Your task to perform on an android device: uninstall "Google Play services" Image 0: 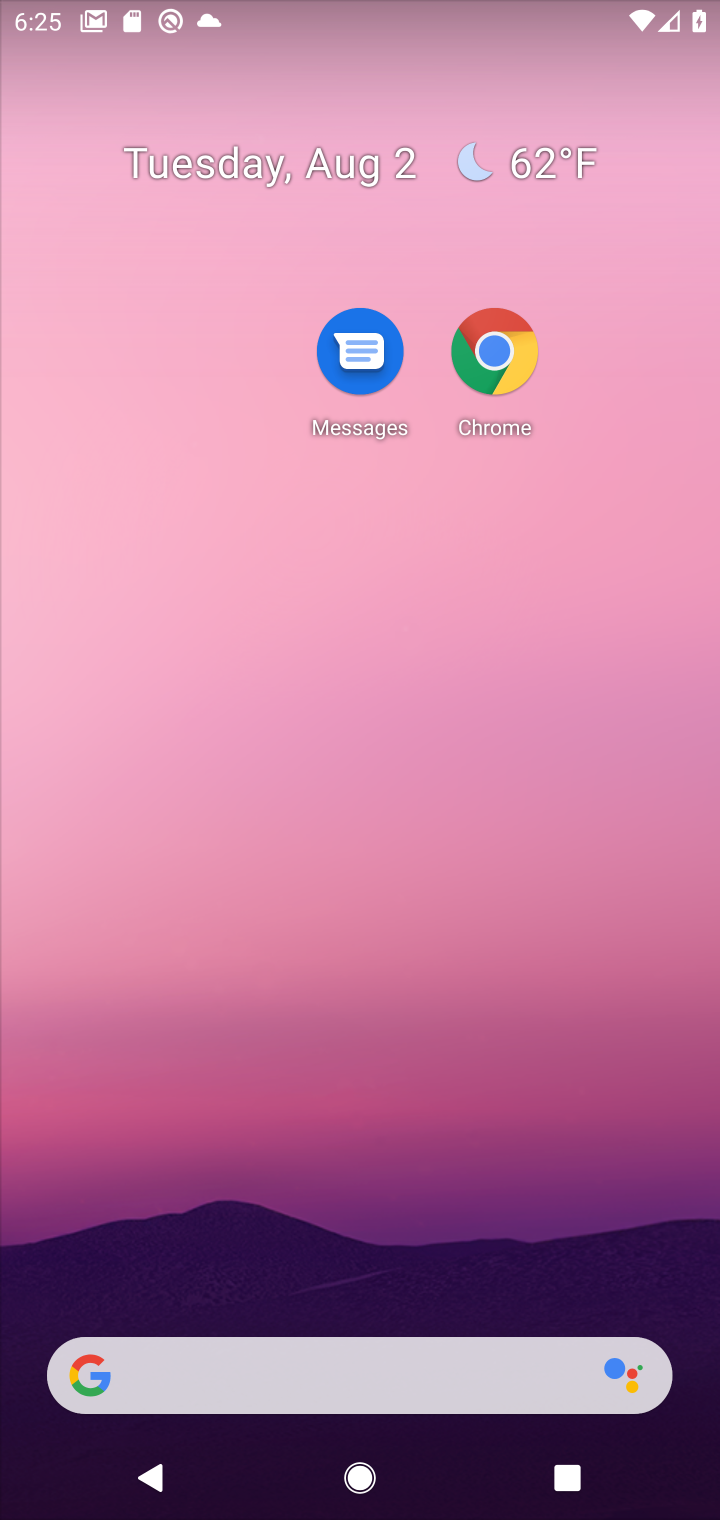
Step 0: drag from (293, 639) to (373, 84)
Your task to perform on an android device: uninstall "Google Play services" Image 1: 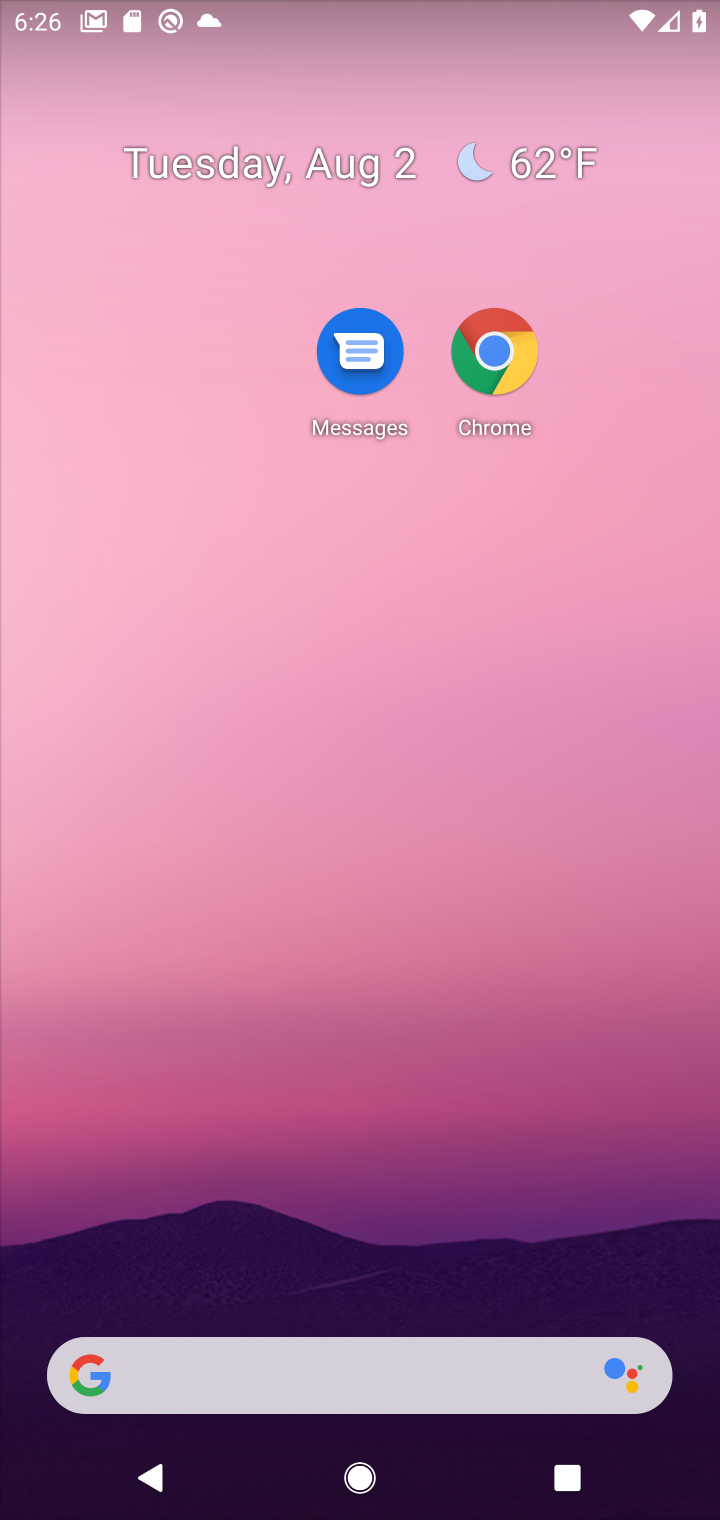
Step 1: drag from (324, 1265) to (455, 153)
Your task to perform on an android device: uninstall "Google Play services" Image 2: 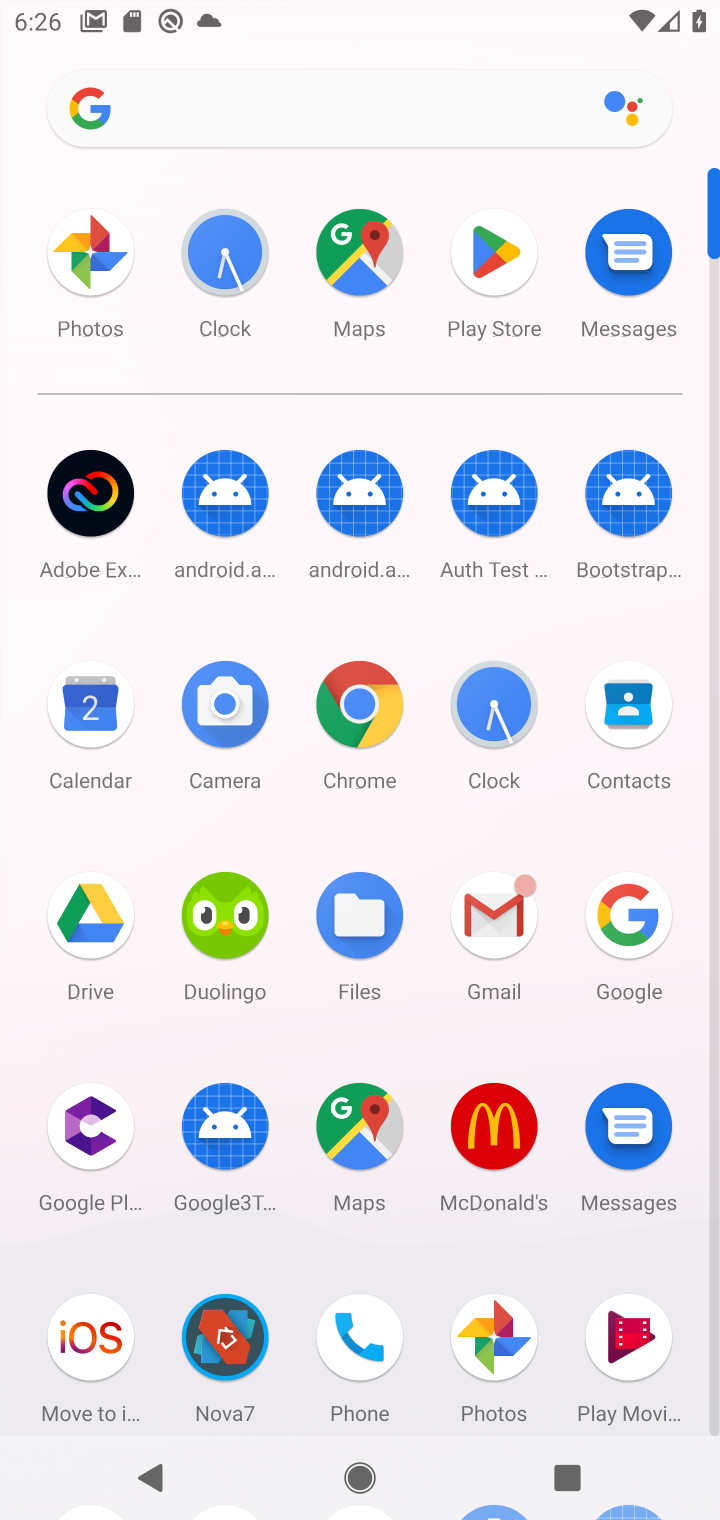
Step 2: click (480, 246)
Your task to perform on an android device: uninstall "Google Play services" Image 3: 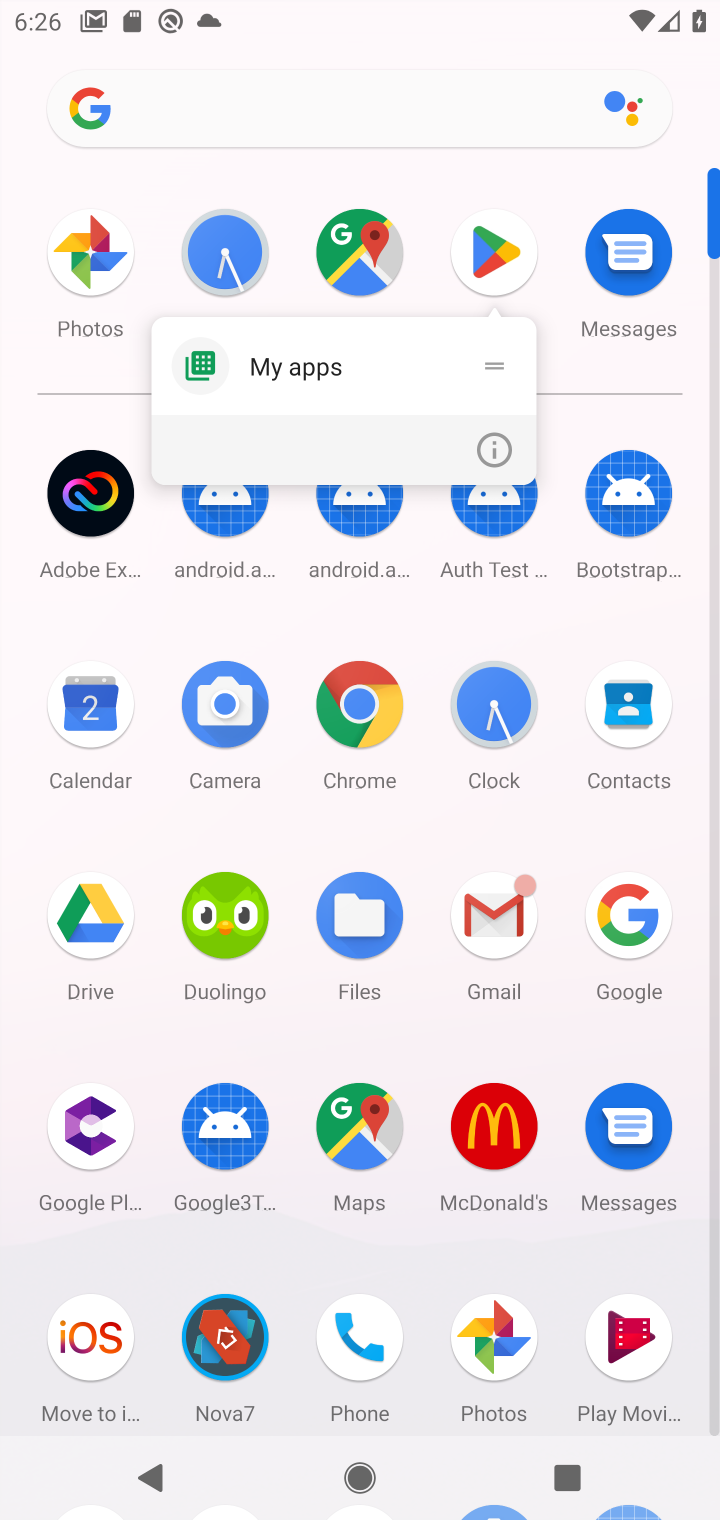
Step 3: click (478, 432)
Your task to perform on an android device: uninstall "Google Play services" Image 4: 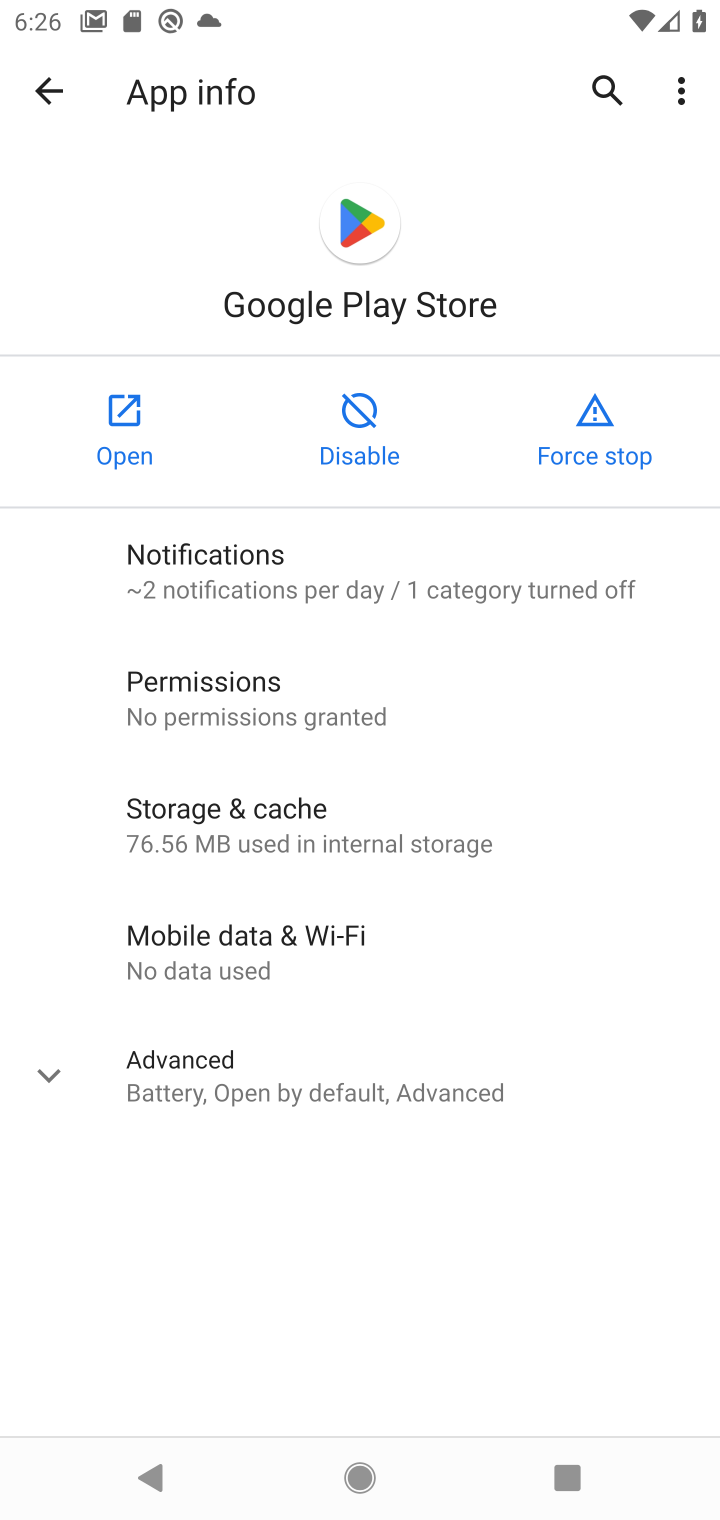
Step 4: click (126, 437)
Your task to perform on an android device: uninstall "Google Play services" Image 5: 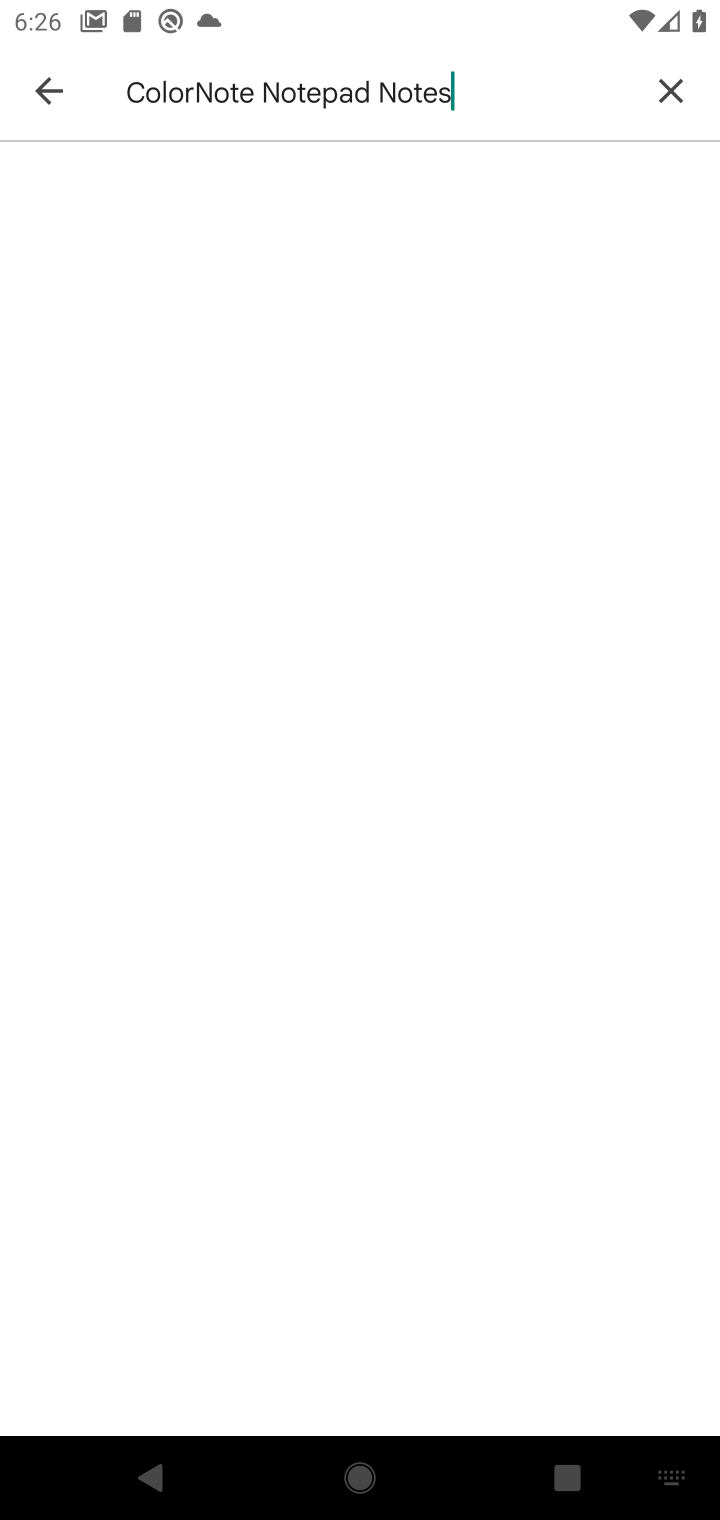
Step 5: drag from (270, 832) to (286, 491)
Your task to perform on an android device: uninstall "Google Play services" Image 6: 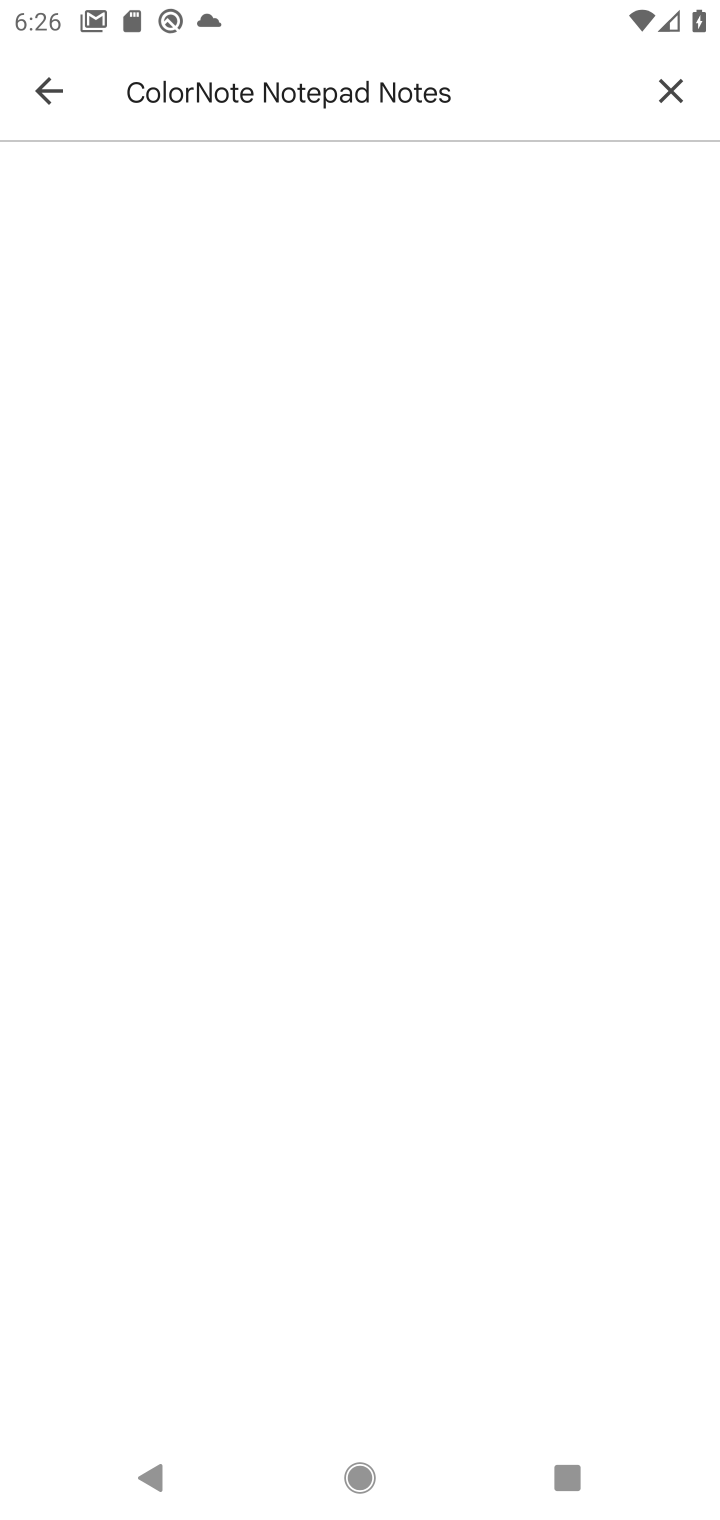
Step 6: drag from (428, 828) to (439, 350)
Your task to perform on an android device: uninstall "Google Play services" Image 7: 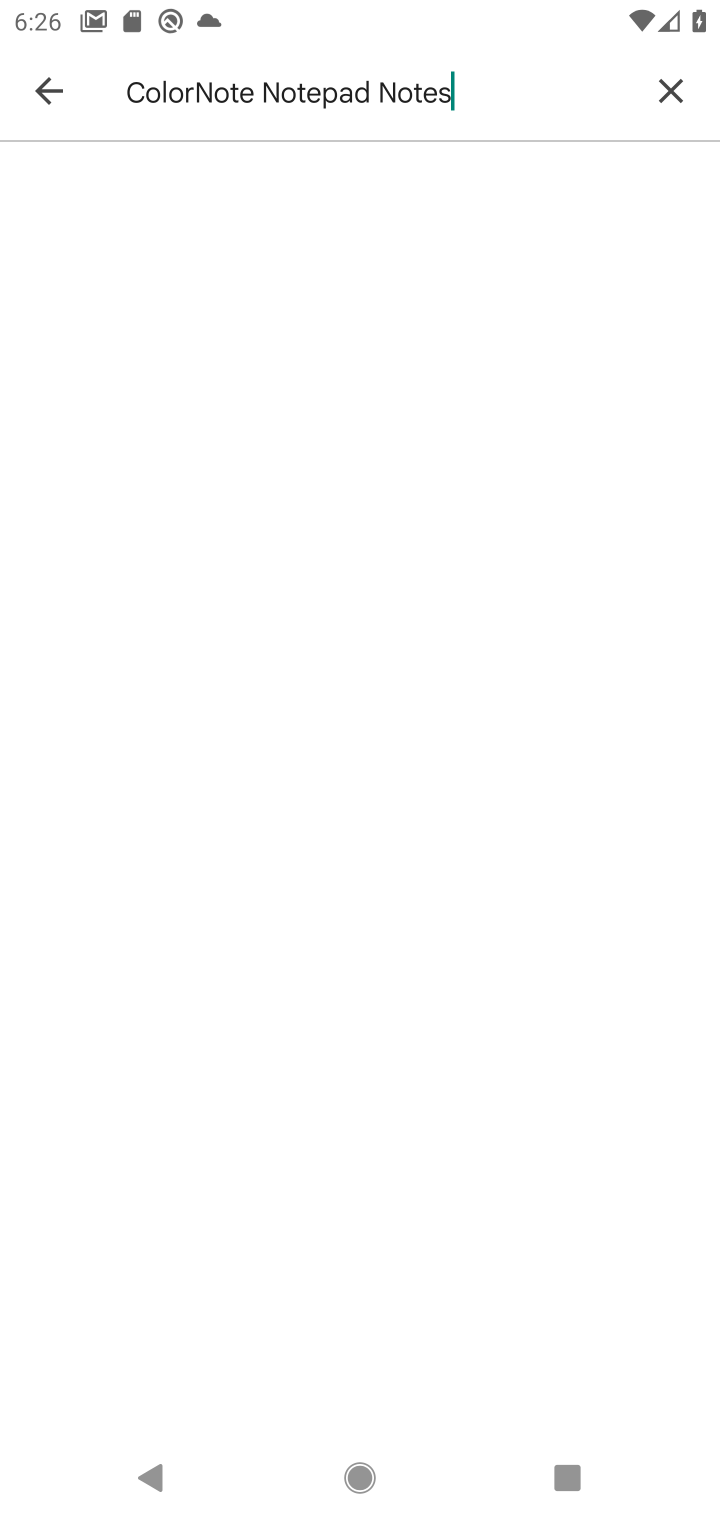
Step 7: drag from (367, 314) to (364, 1213)
Your task to perform on an android device: uninstall "Google Play services" Image 8: 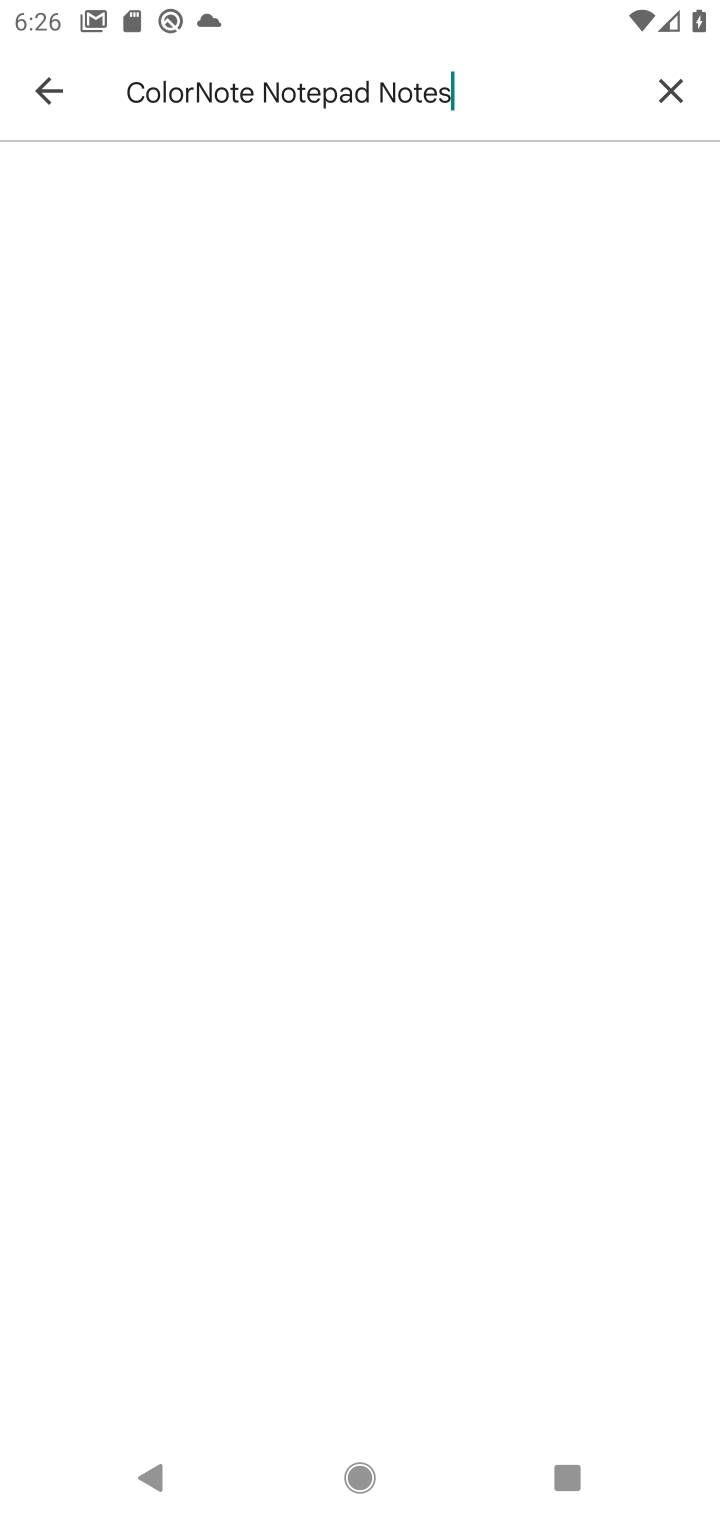
Step 8: drag from (286, 481) to (435, 636)
Your task to perform on an android device: uninstall "Google Play services" Image 9: 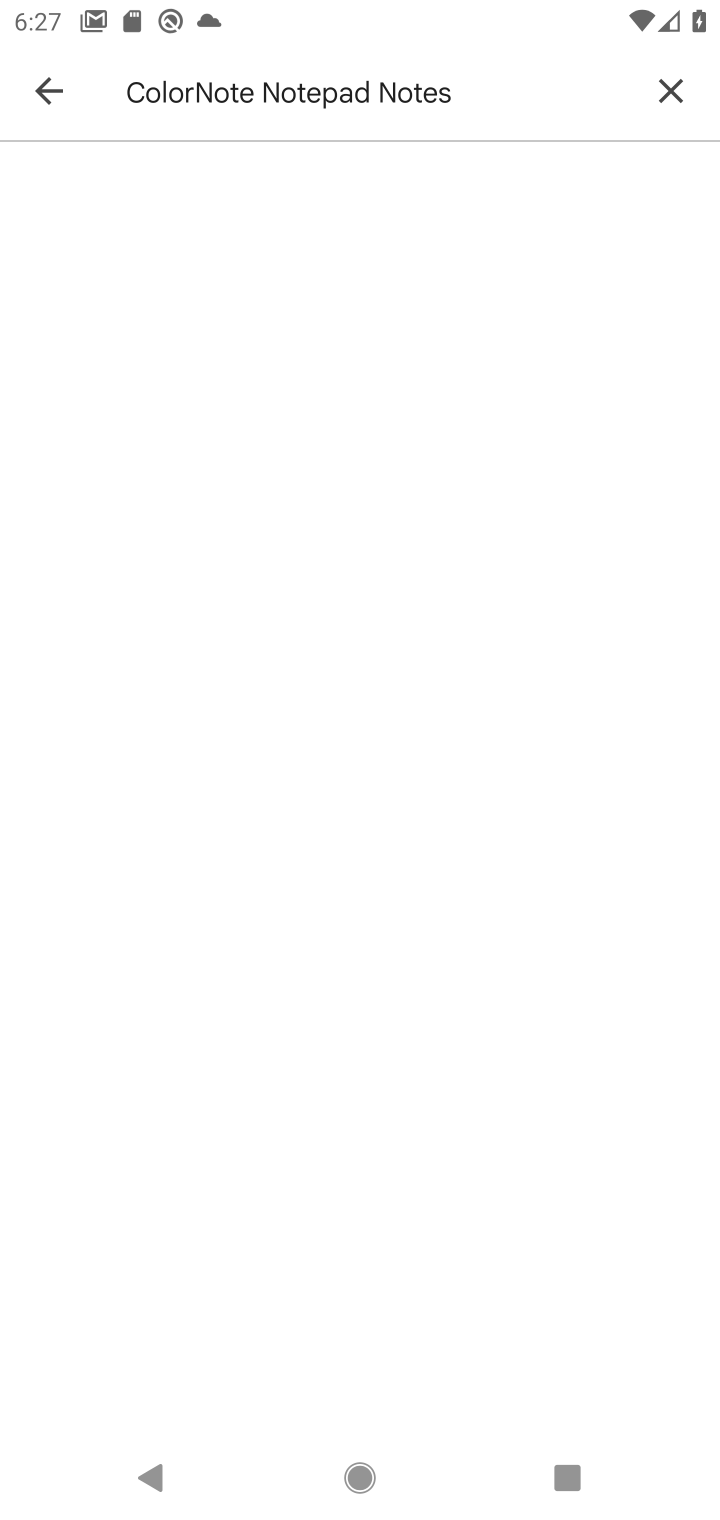
Step 9: drag from (249, 364) to (608, 1405)
Your task to perform on an android device: uninstall "Google Play services" Image 10: 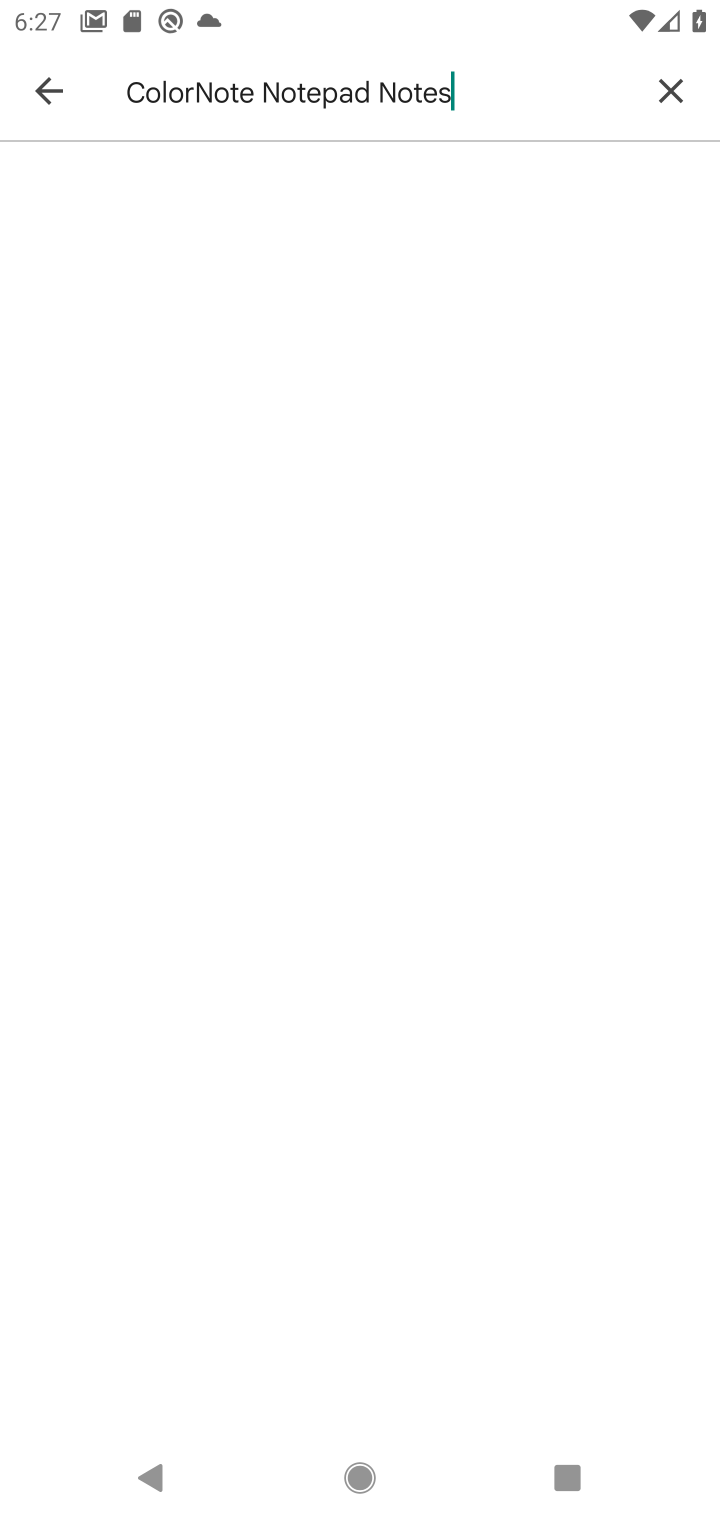
Step 10: drag from (474, 520) to (382, 1305)
Your task to perform on an android device: uninstall "Google Play services" Image 11: 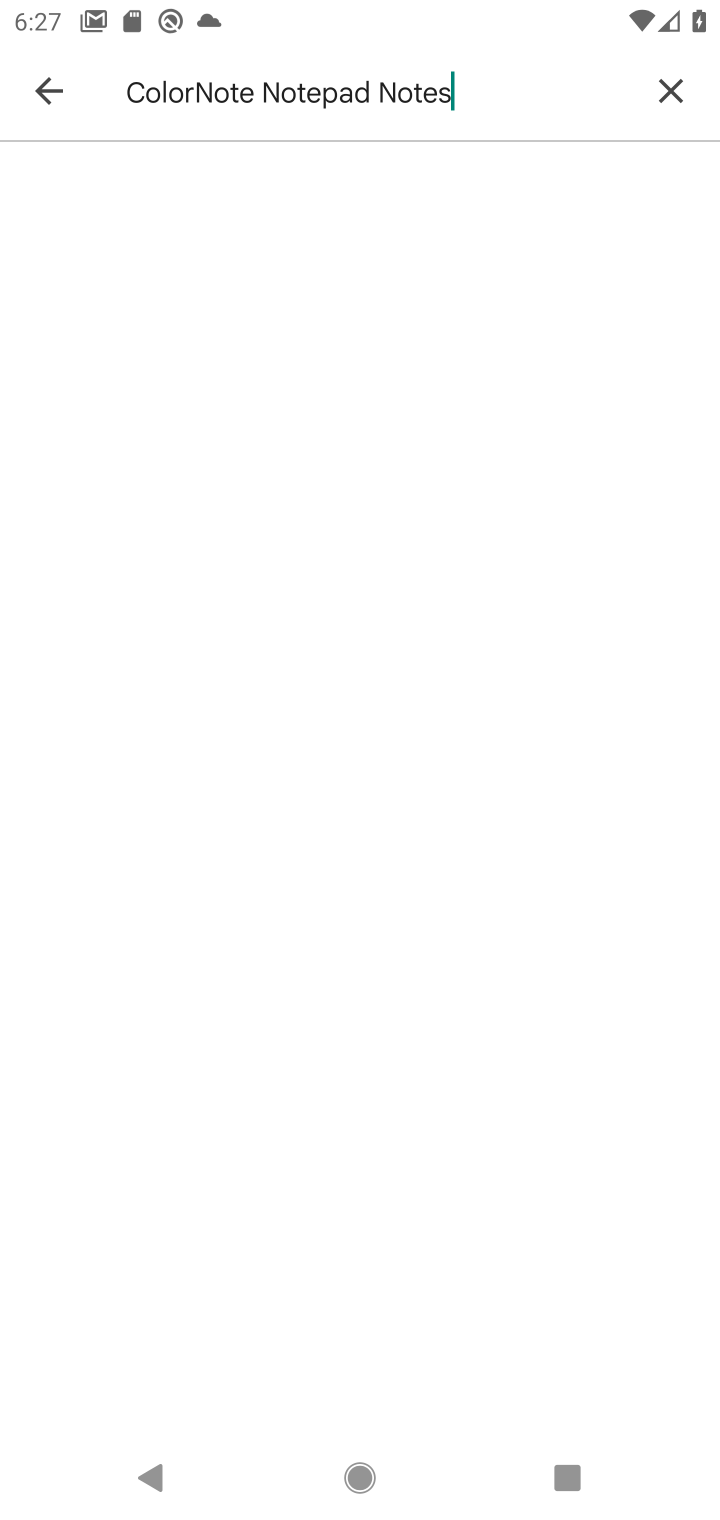
Step 11: drag from (368, 268) to (359, 1076)
Your task to perform on an android device: uninstall "Google Play services" Image 12: 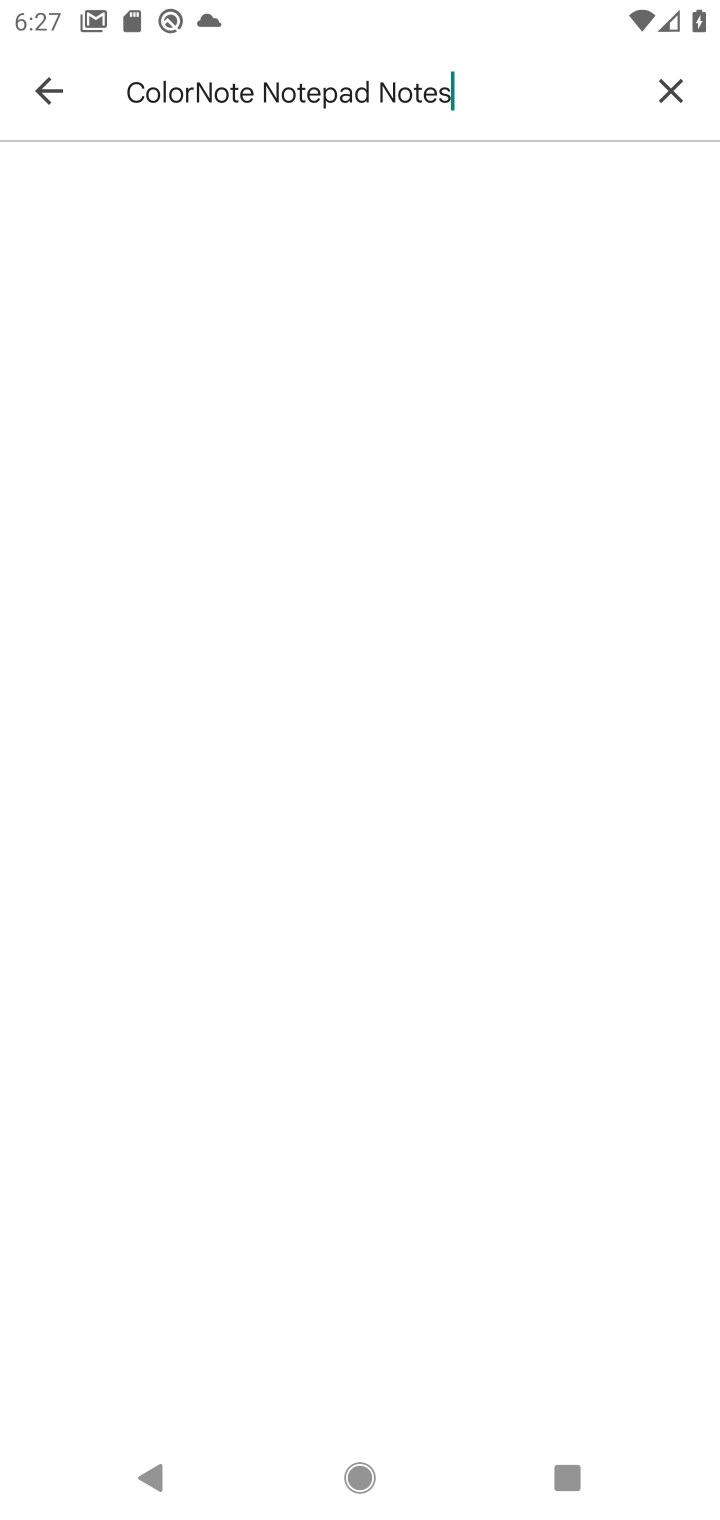
Step 12: drag from (415, 700) to (415, 924)
Your task to perform on an android device: uninstall "Google Play services" Image 13: 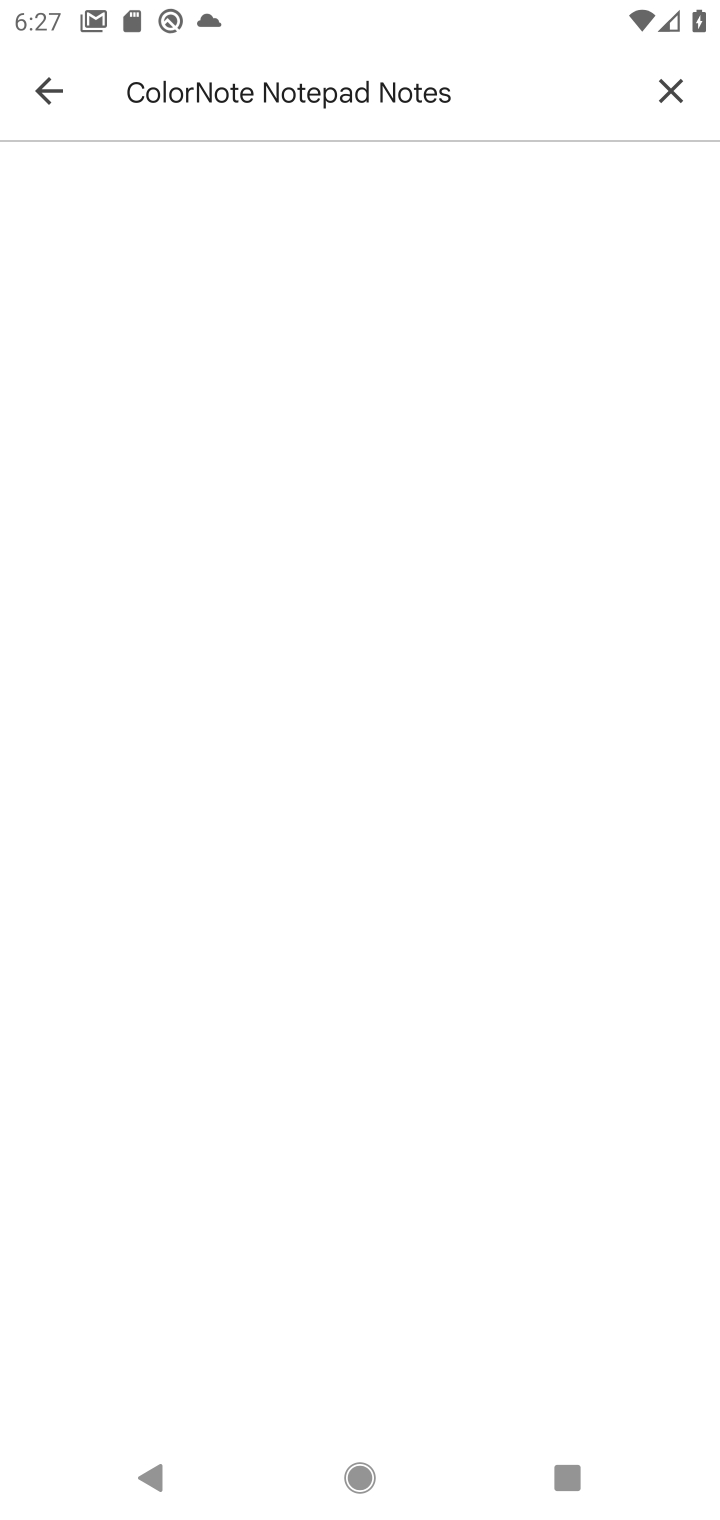
Step 13: click (419, 938)
Your task to perform on an android device: uninstall "Google Play services" Image 14: 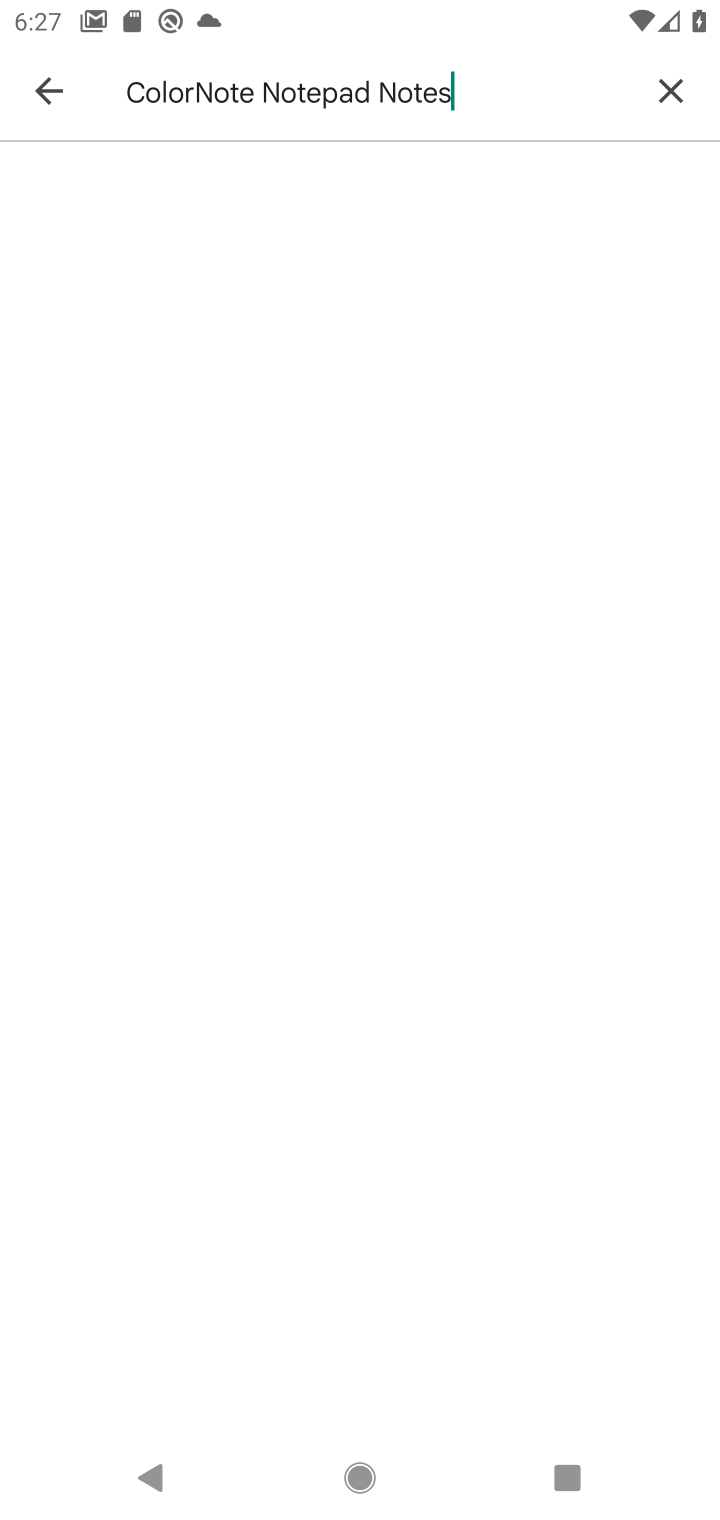
Step 14: drag from (317, 981) to (357, 147)
Your task to perform on an android device: uninstall "Google Play services" Image 15: 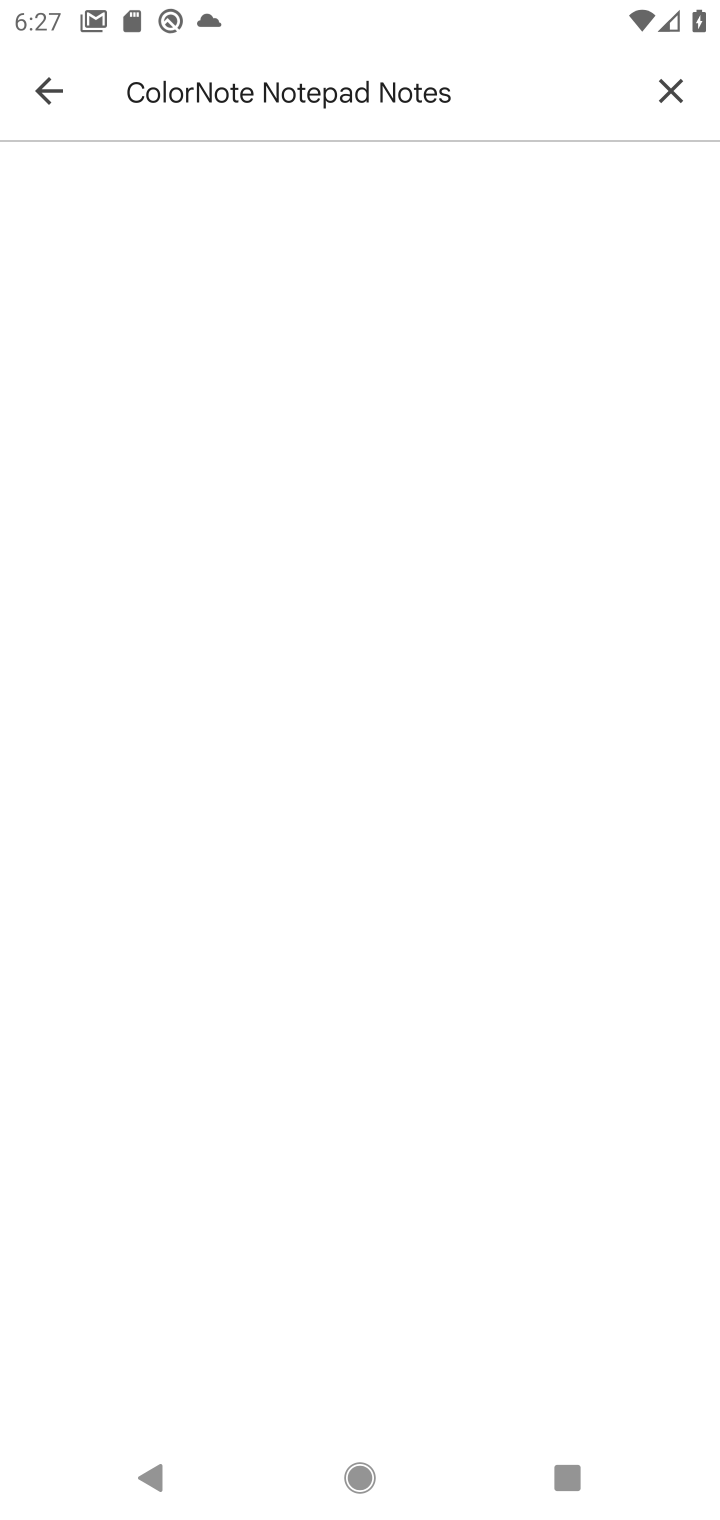
Step 15: drag from (381, 634) to (418, 471)
Your task to perform on an android device: uninstall "Google Play services" Image 16: 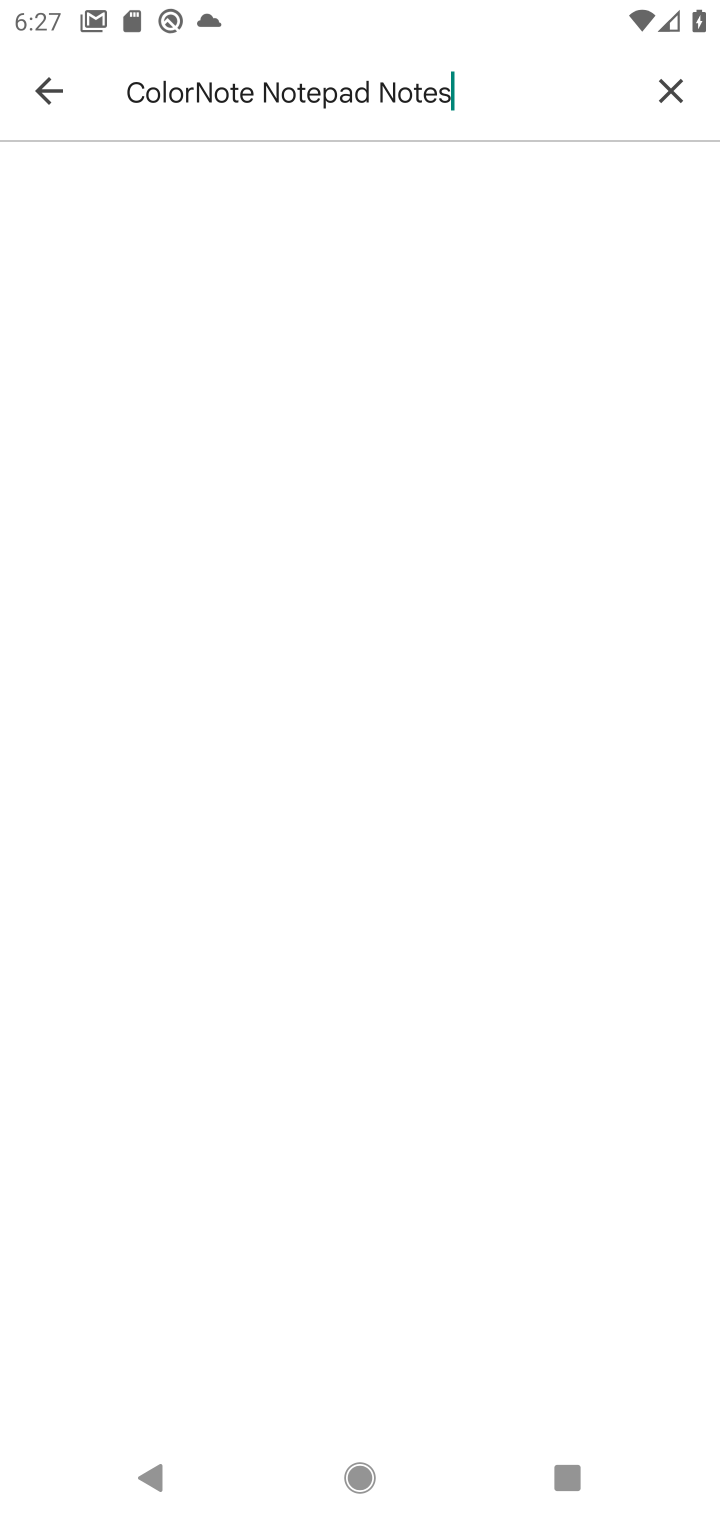
Step 16: drag from (424, 666) to (496, 343)
Your task to perform on an android device: uninstall "Google Play services" Image 17: 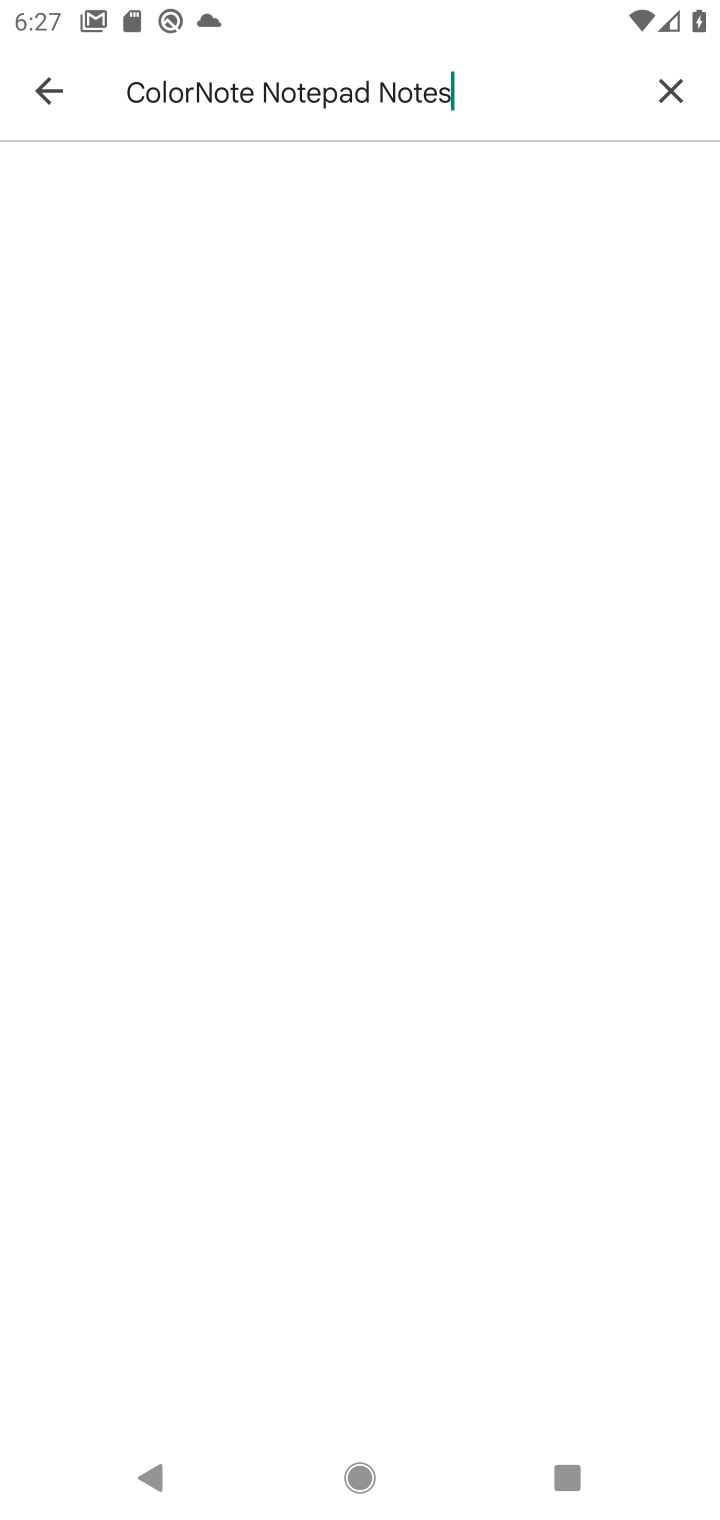
Step 17: drag from (311, 943) to (364, 567)
Your task to perform on an android device: uninstall "Google Play services" Image 18: 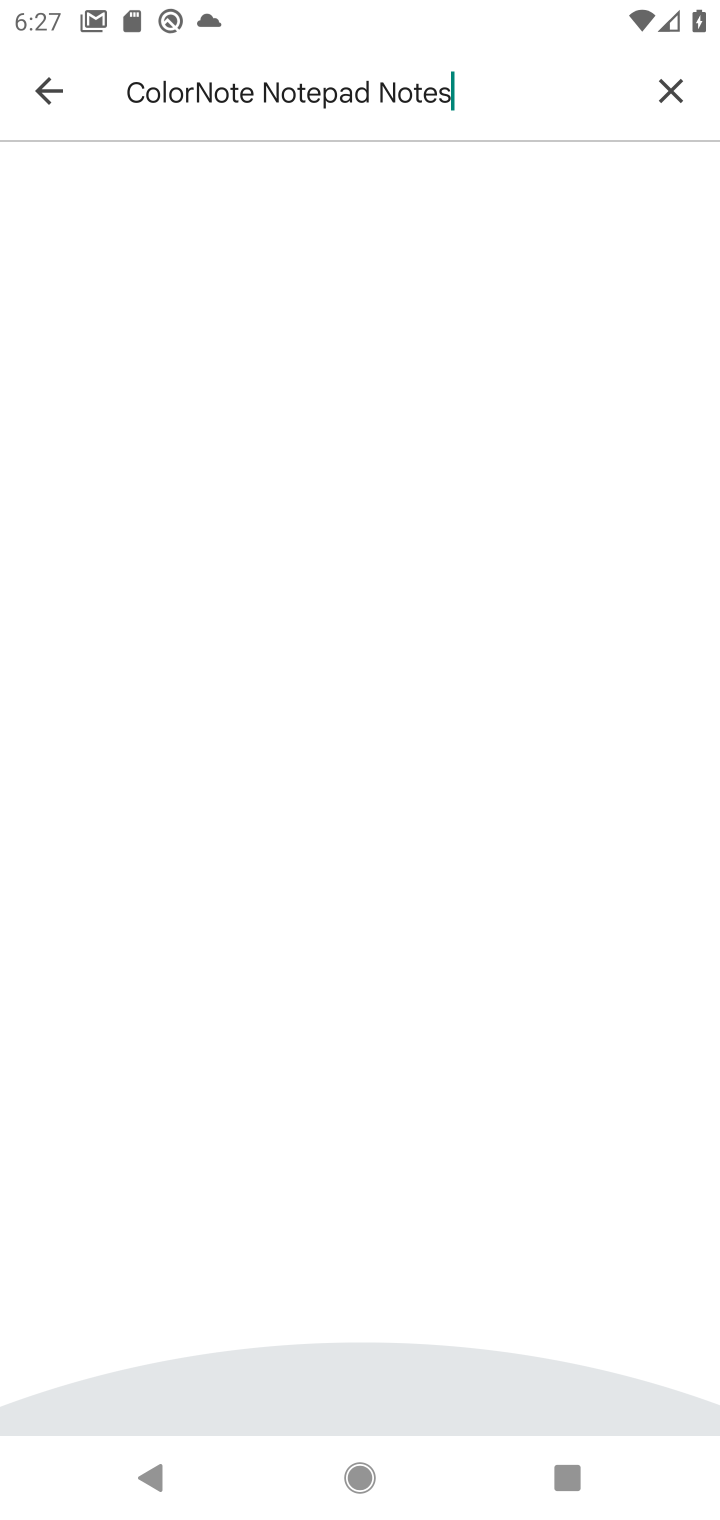
Step 18: drag from (372, 411) to (441, 972)
Your task to perform on an android device: uninstall "Google Play services" Image 19: 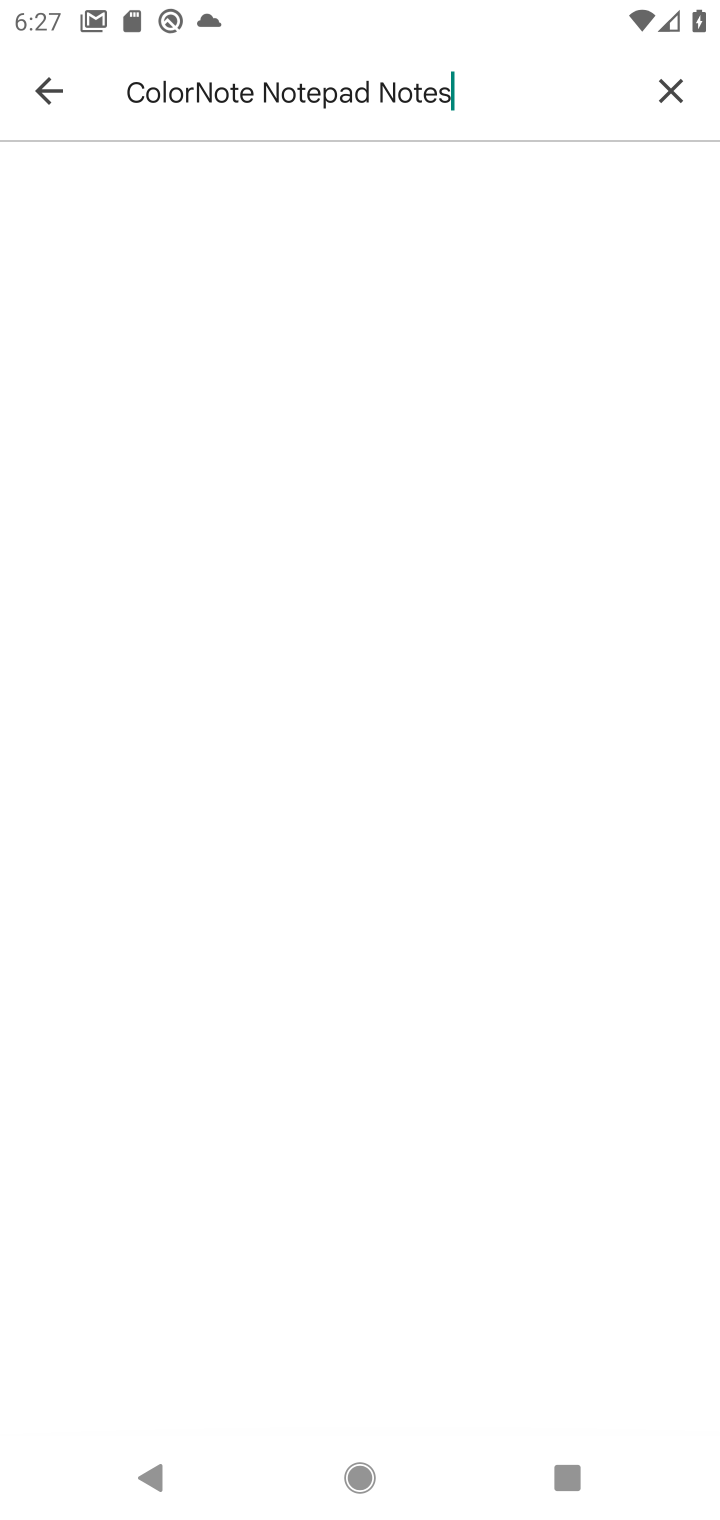
Step 19: click (418, 279)
Your task to perform on an android device: uninstall "Google Play services" Image 20: 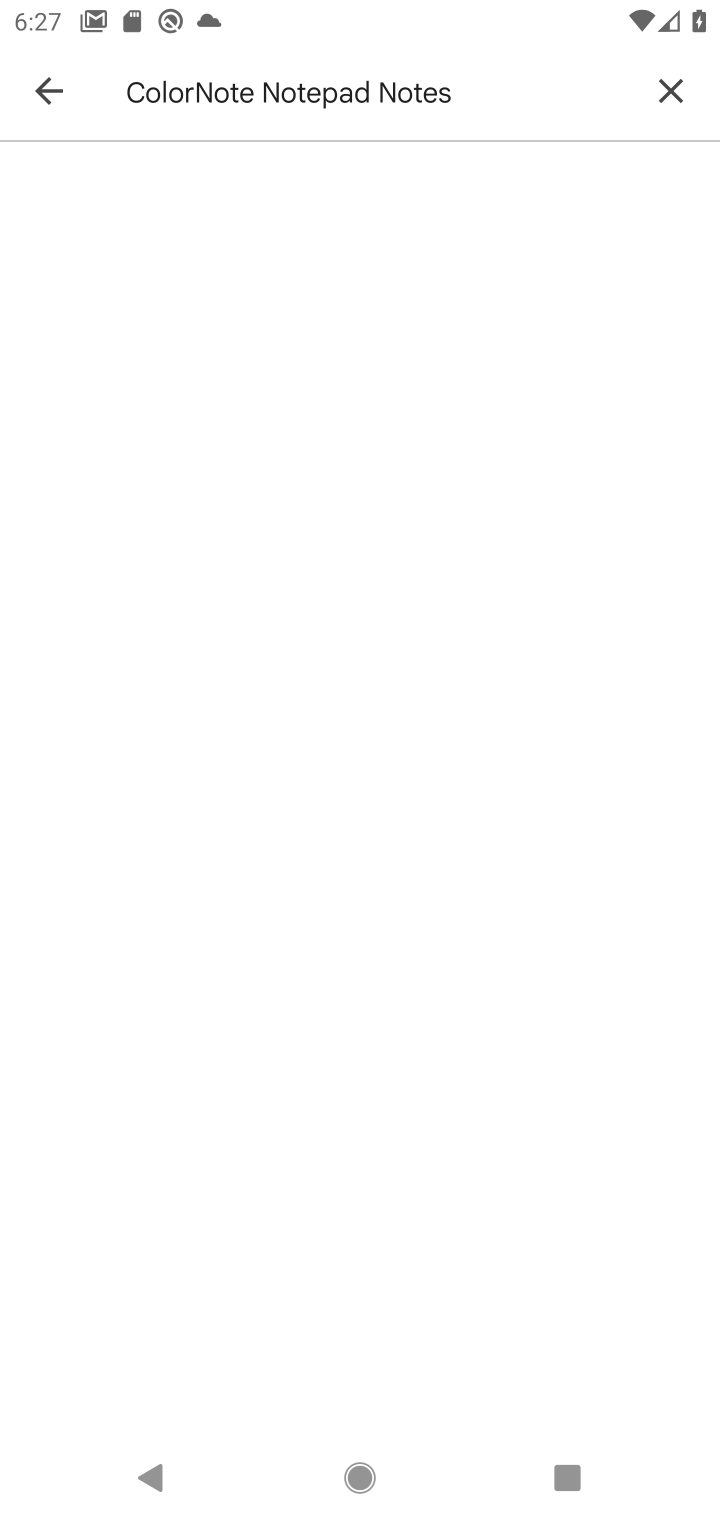
Step 20: drag from (171, 685) to (334, 815)
Your task to perform on an android device: uninstall "Google Play services" Image 21: 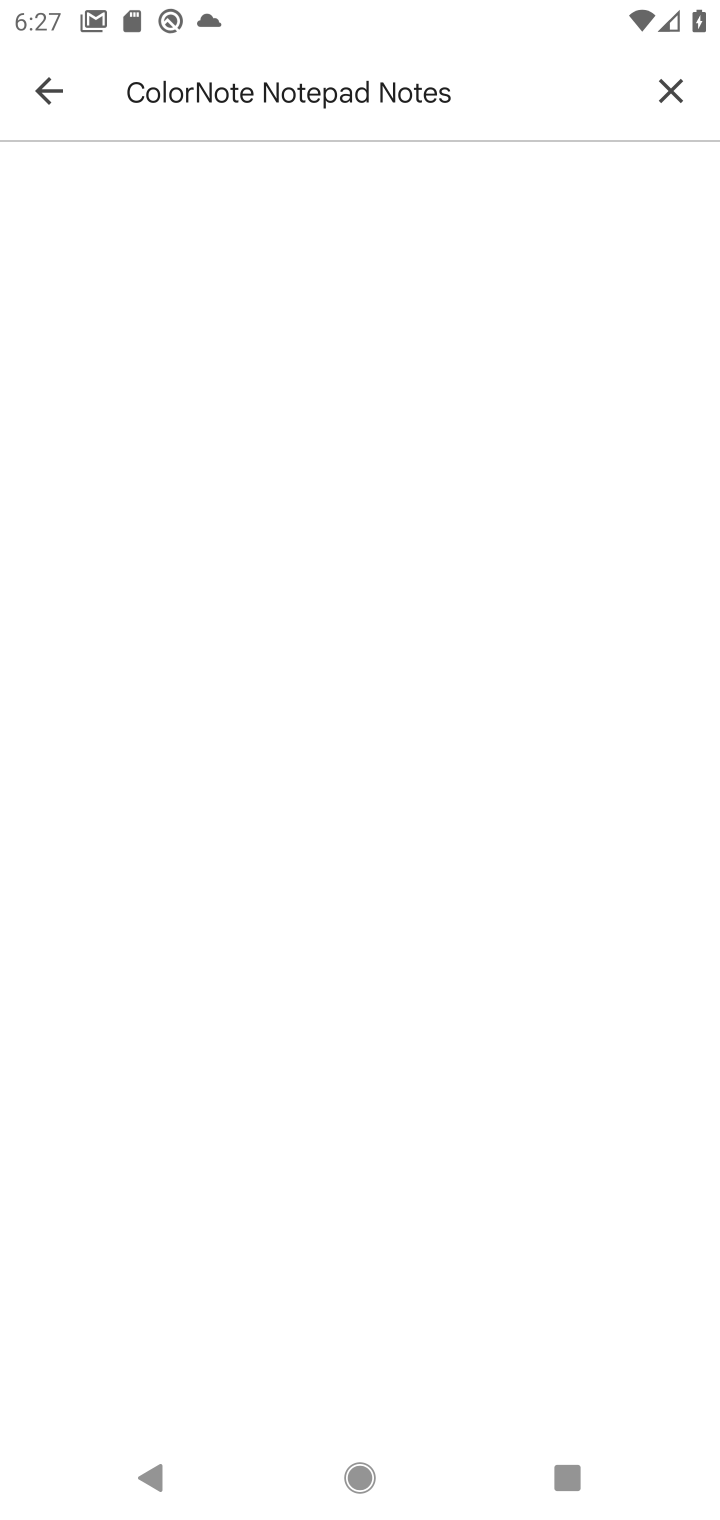
Step 21: click (327, 323)
Your task to perform on an android device: uninstall "Google Play services" Image 22: 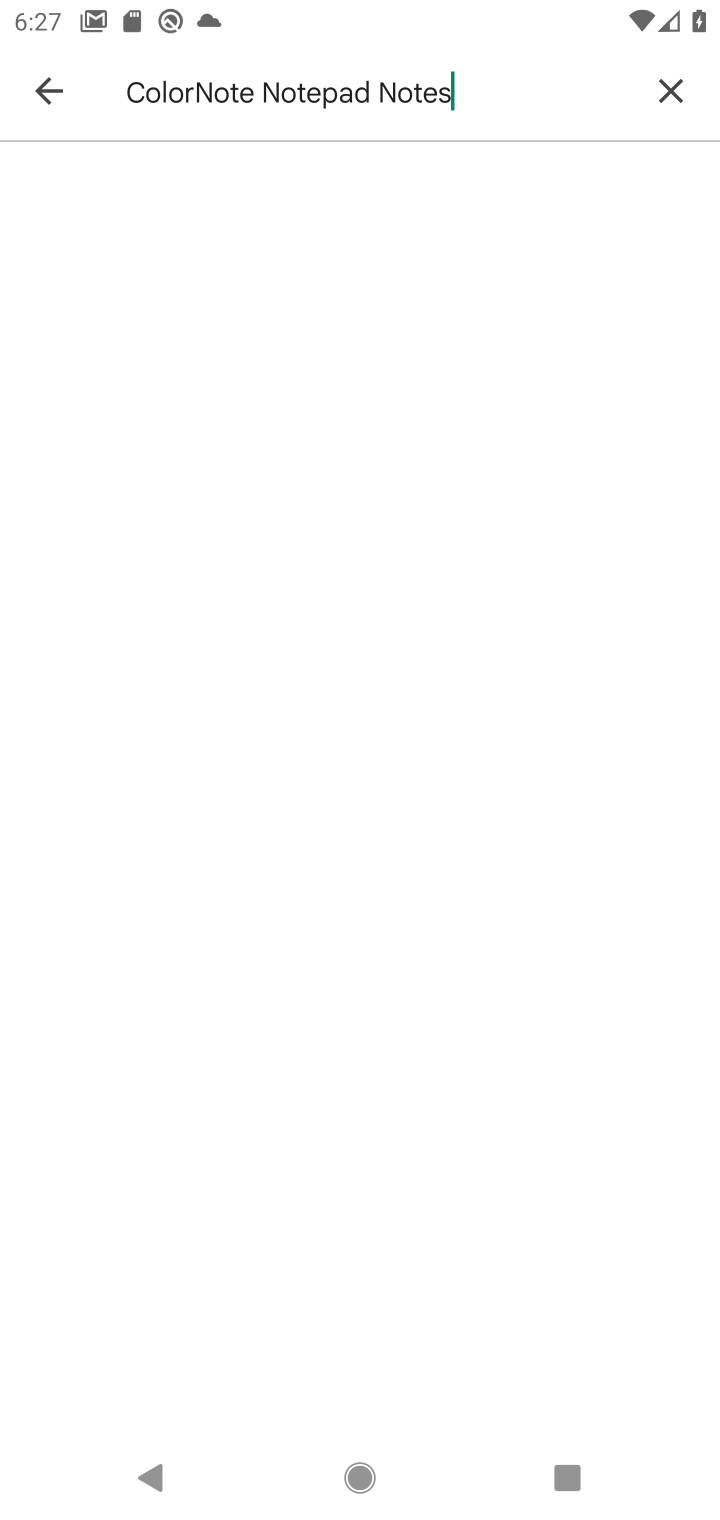
Step 22: click (668, 92)
Your task to perform on an android device: uninstall "Google Play services" Image 23: 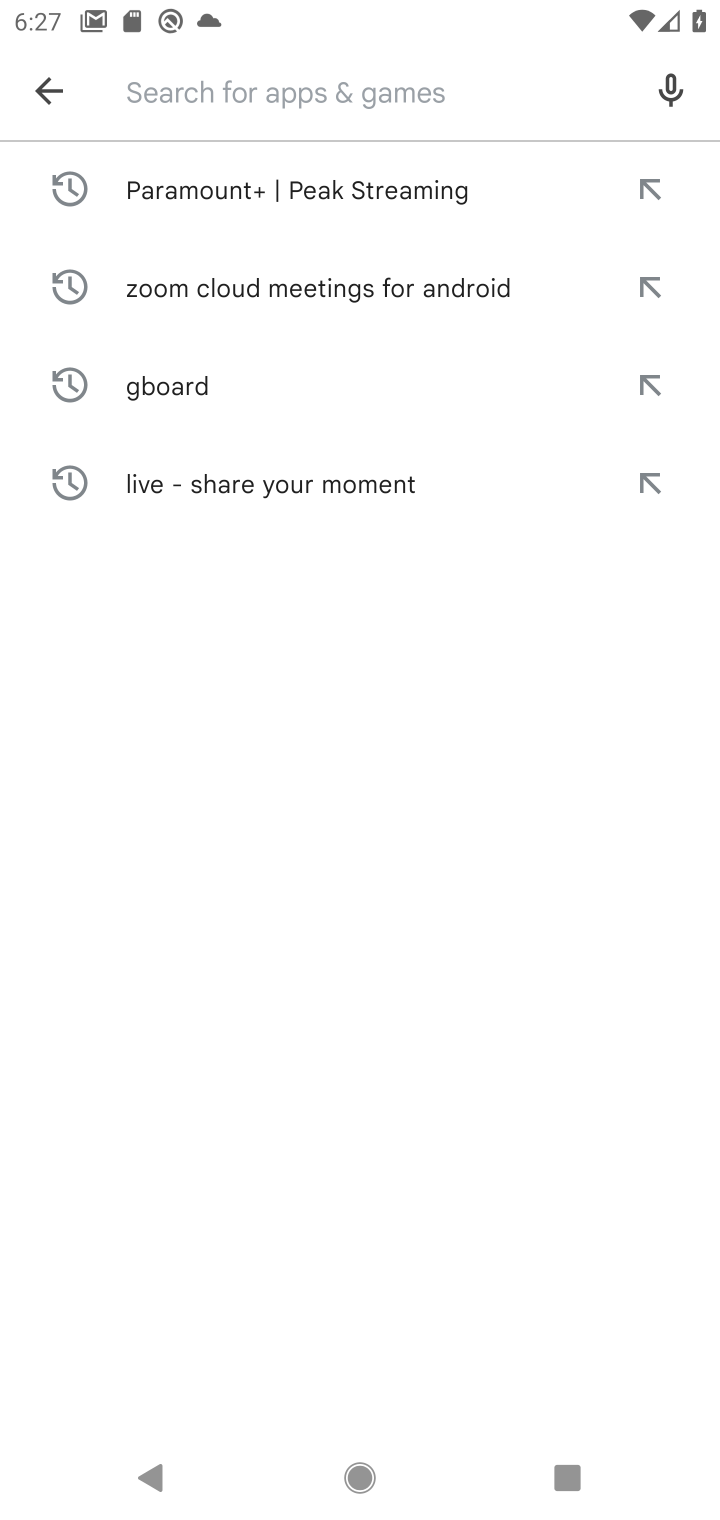
Step 23: drag from (448, 706) to (439, 288)
Your task to perform on an android device: uninstall "Google Play services" Image 24: 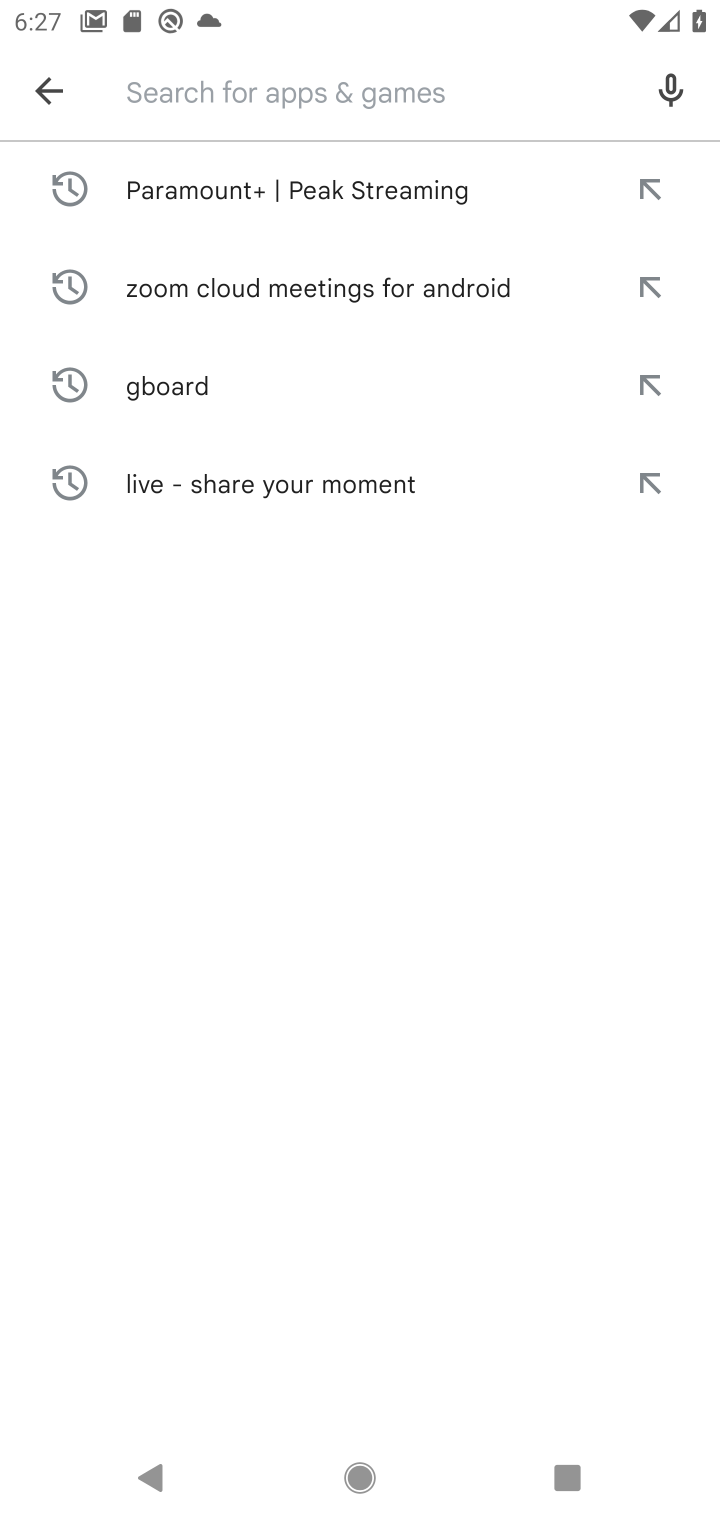
Step 24: type "Google Play services"
Your task to perform on an android device: uninstall "Google Play services" Image 25: 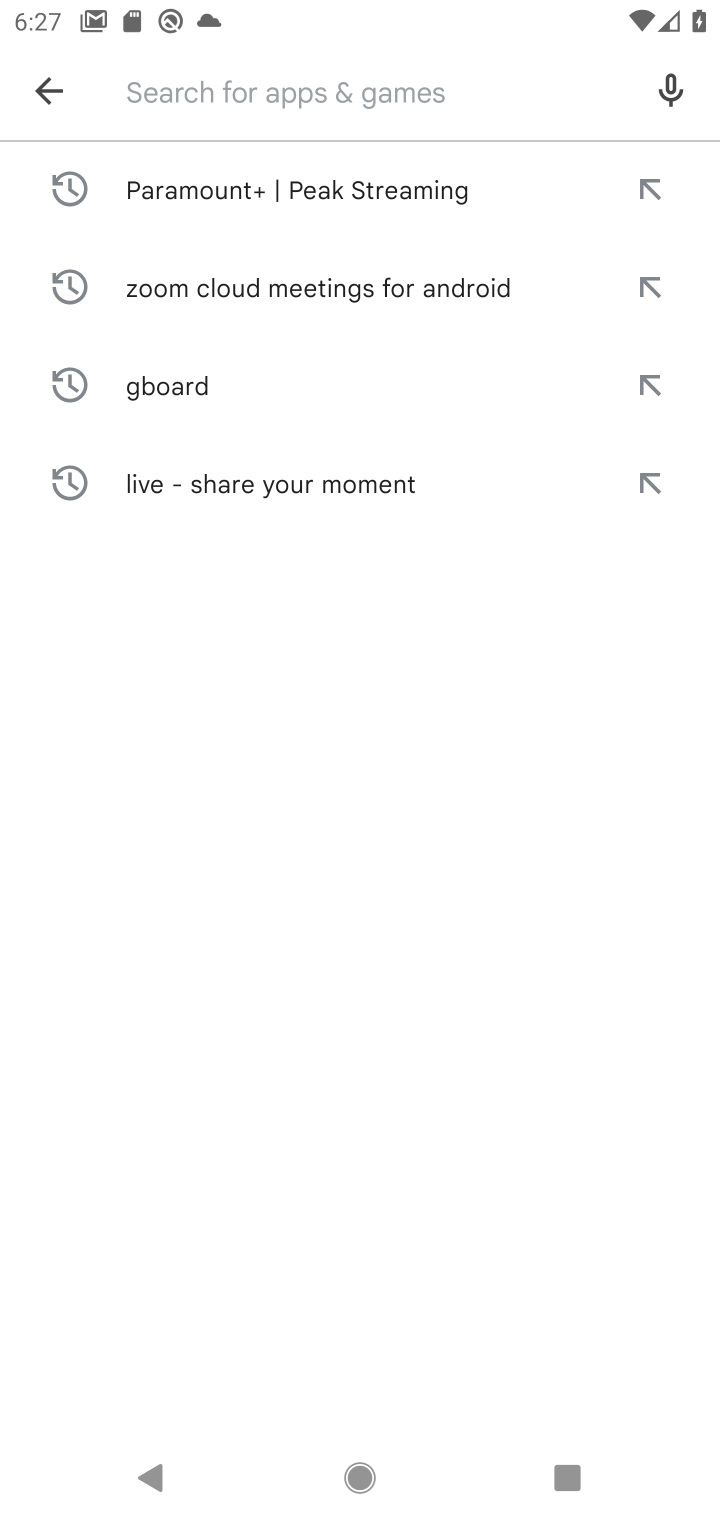
Step 25: click (209, 104)
Your task to perform on an android device: uninstall "Google Play services" Image 26: 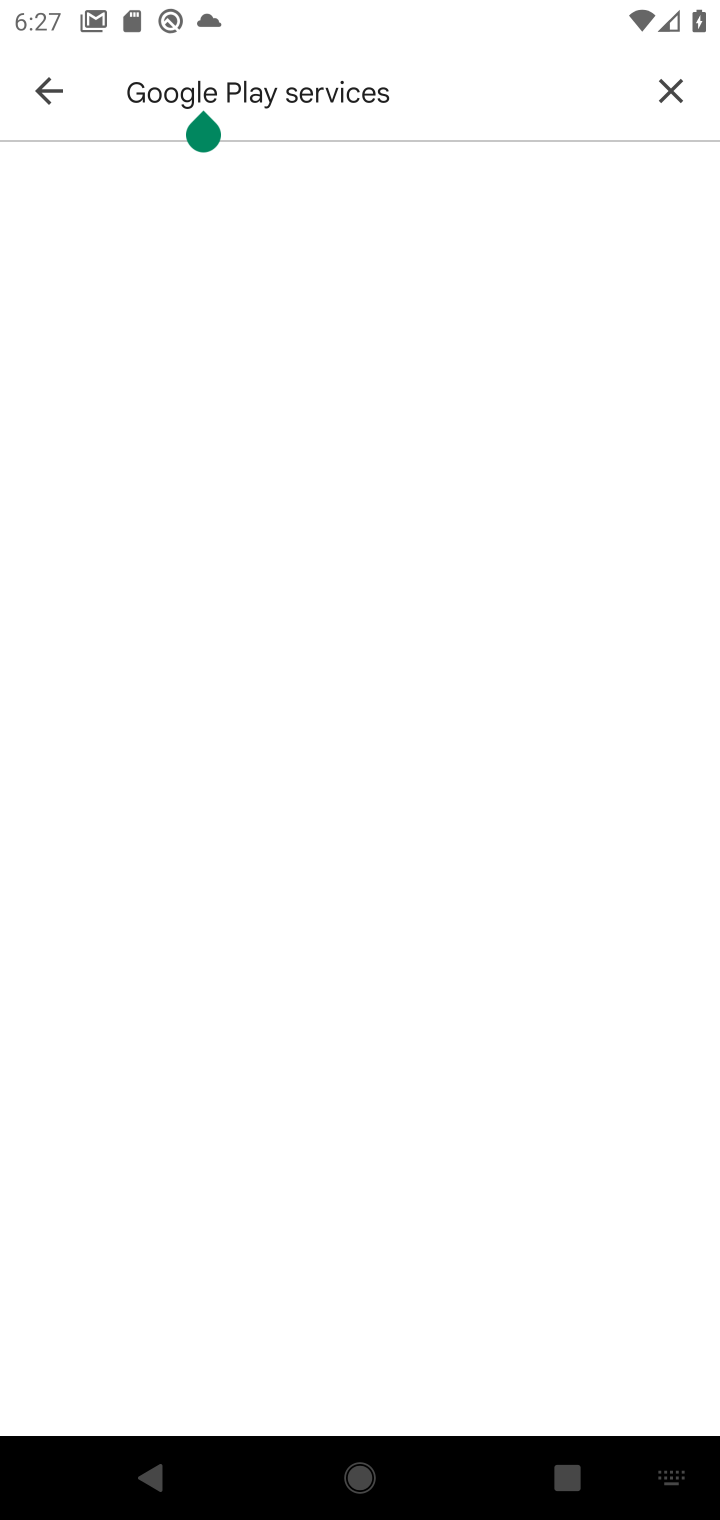
Step 26: click (463, 83)
Your task to perform on an android device: uninstall "Google Play services" Image 27: 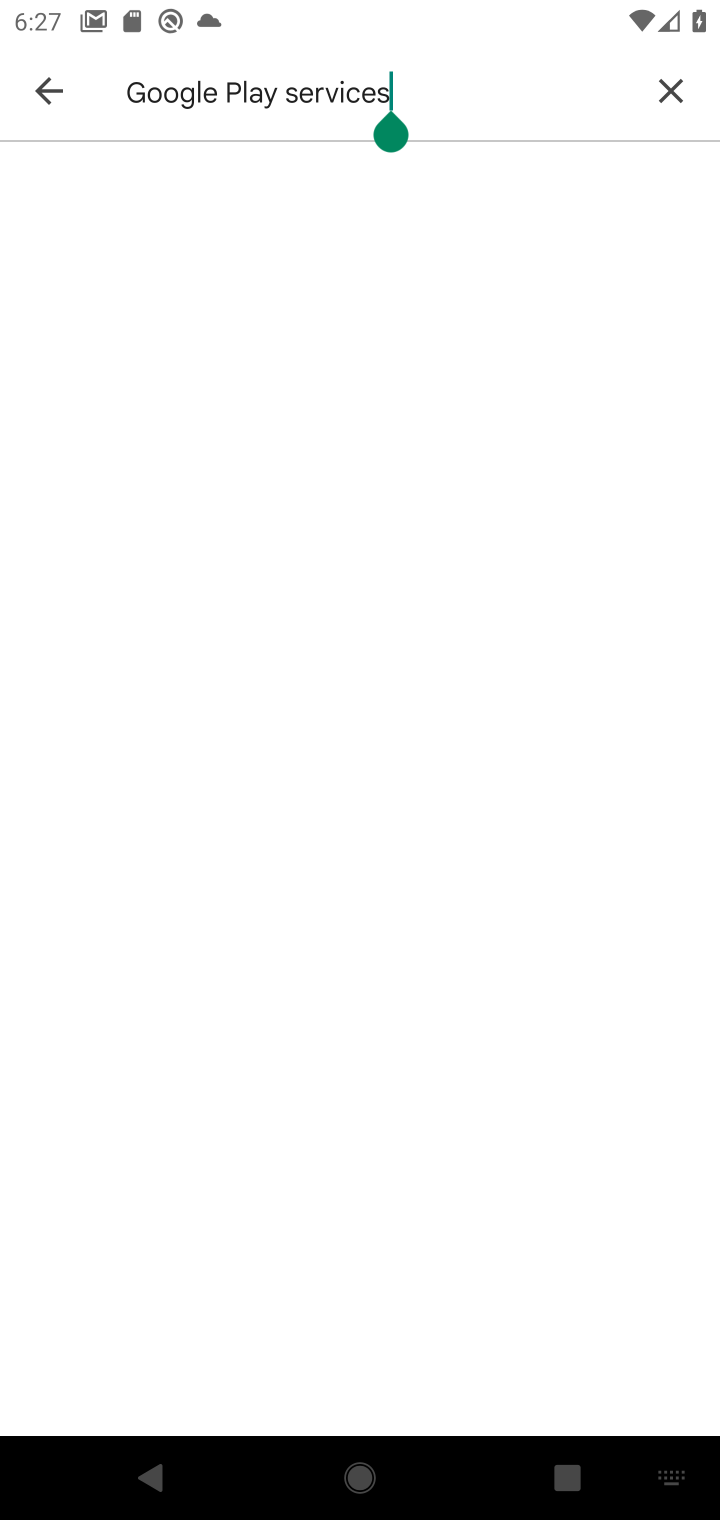
Step 27: task complete